Your task to perform on an android device: change timer sound Image 0: 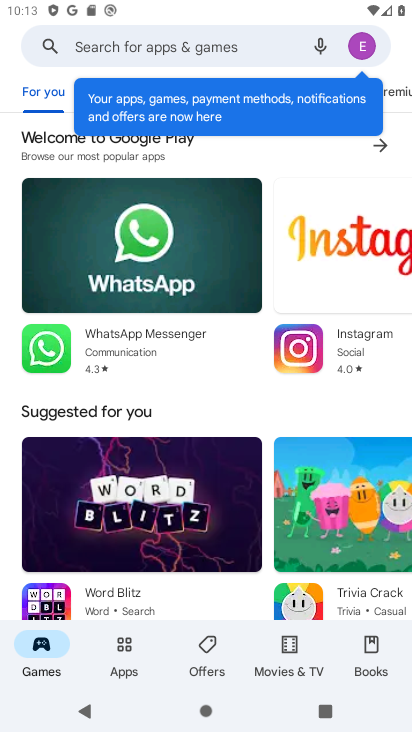
Step 0: press home button
Your task to perform on an android device: change timer sound Image 1: 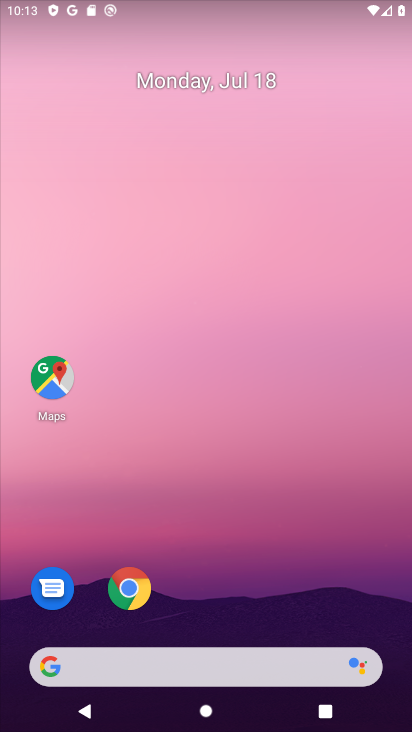
Step 1: drag from (242, 512) to (37, 72)
Your task to perform on an android device: change timer sound Image 2: 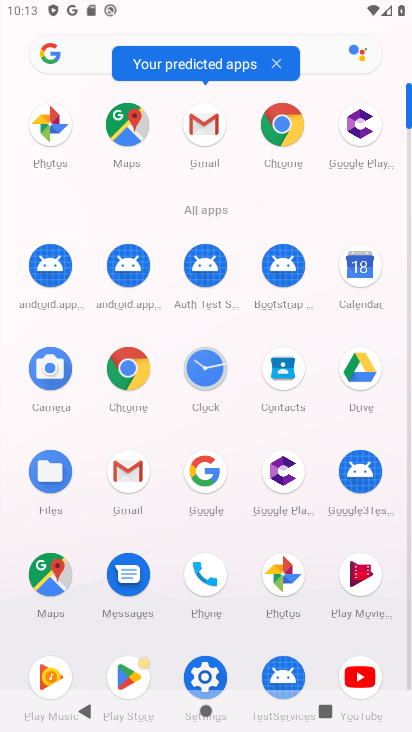
Step 2: click (200, 670)
Your task to perform on an android device: change timer sound Image 3: 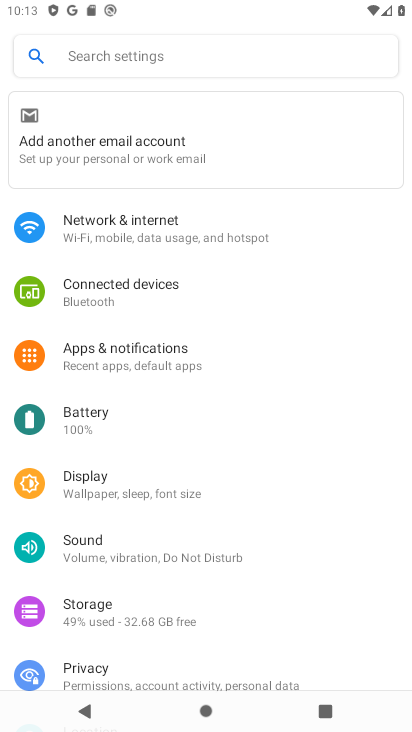
Step 3: drag from (219, 612) to (254, 448)
Your task to perform on an android device: change timer sound Image 4: 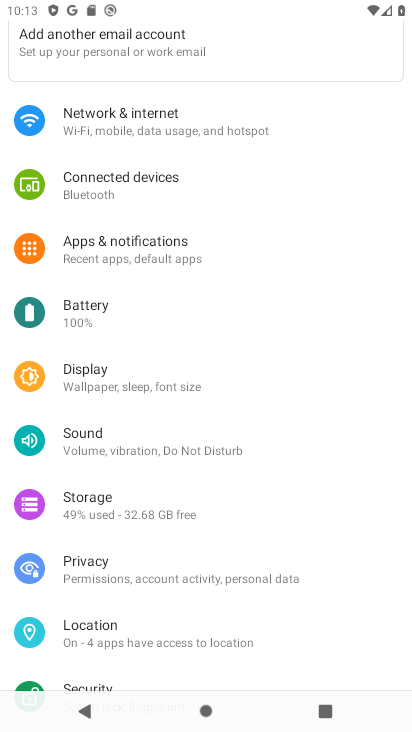
Step 4: press home button
Your task to perform on an android device: change timer sound Image 5: 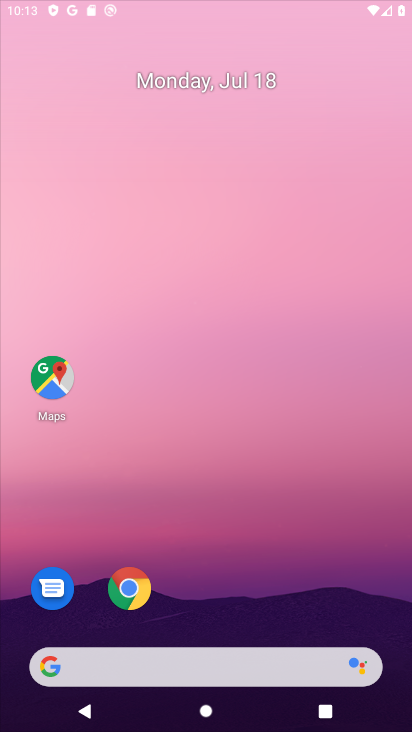
Step 5: drag from (117, 624) to (358, 99)
Your task to perform on an android device: change timer sound Image 6: 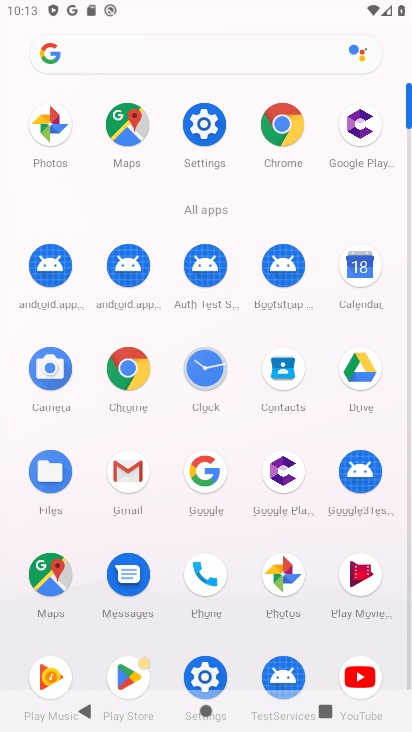
Step 6: click (223, 391)
Your task to perform on an android device: change timer sound Image 7: 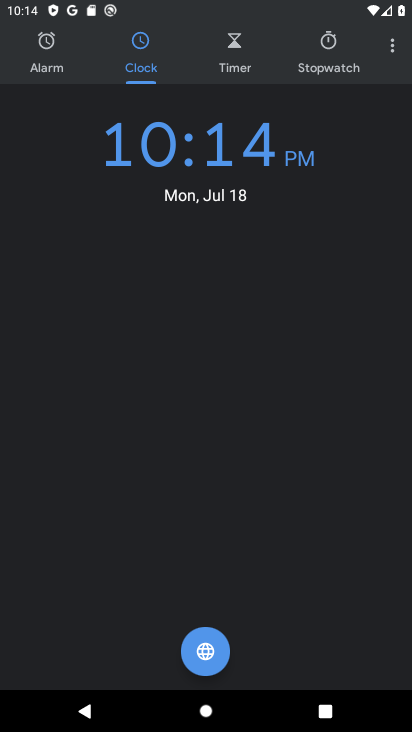
Step 7: click (230, 56)
Your task to perform on an android device: change timer sound Image 8: 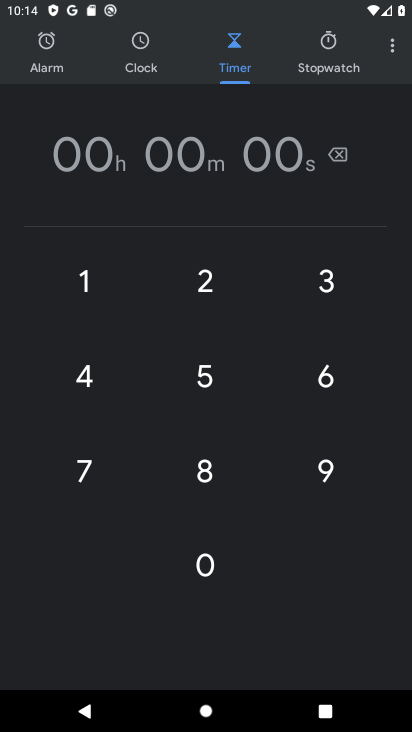
Step 8: click (391, 53)
Your task to perform on an android device: change timer sound Image 9: 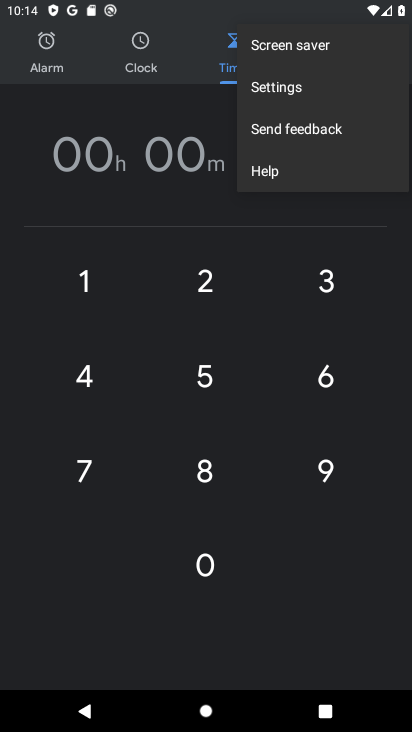
Step 9: click (269, 101)
Your task to perform on an android device: change timer sound Image 10: 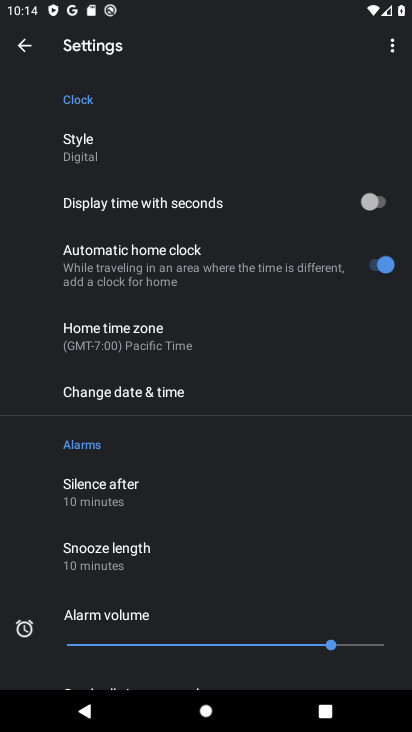
Step 10: drag from (190, 602) to (276, 129)
Your task to perform on an android device: change timer sound Image 11: 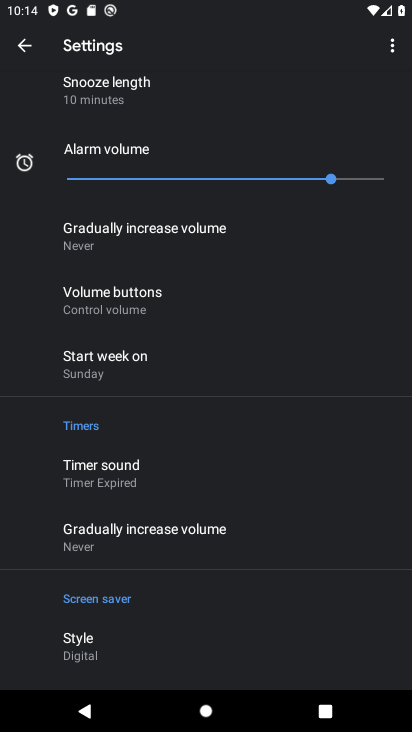
Step 11: click (126, 470)
Your task to perform on an android device: change timer sound Image 12: 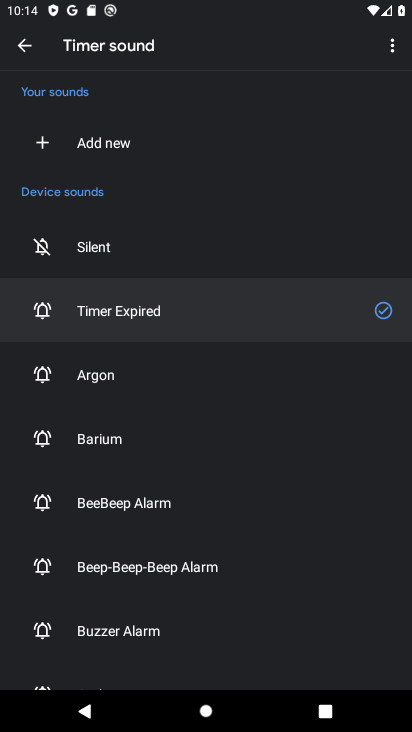
Step 12: click (109, 439)
Your task to perform on an android device: change timer sound Image 13: 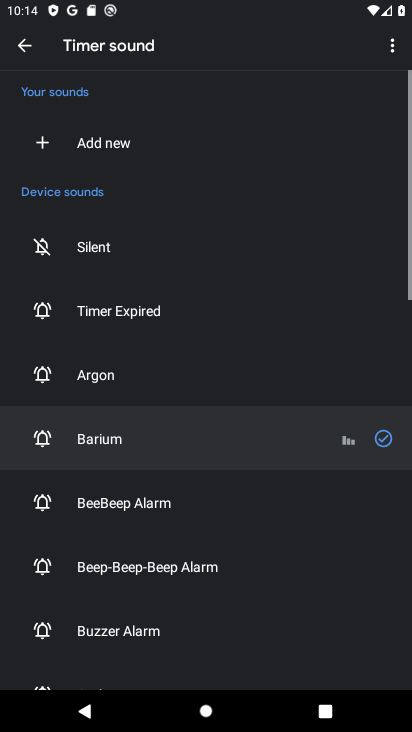
Step 13: task complete